Your task to perform on an android device: Set an alarm for 3pm Image 0: 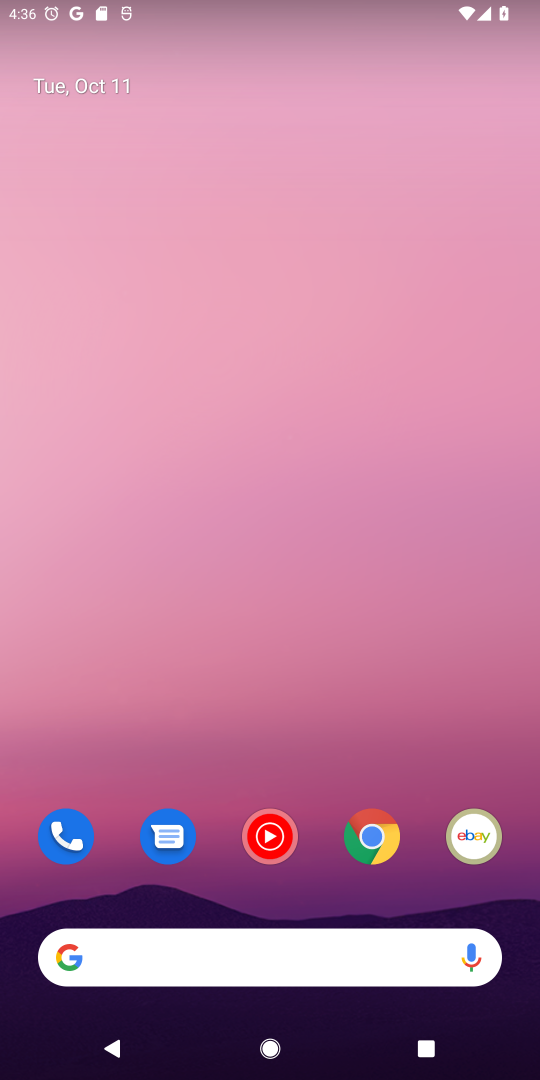
Step 0: drag from (210, 905) to (209, 178)
Your task to perform on an android device: Set an alarm for 3pm Image 1: 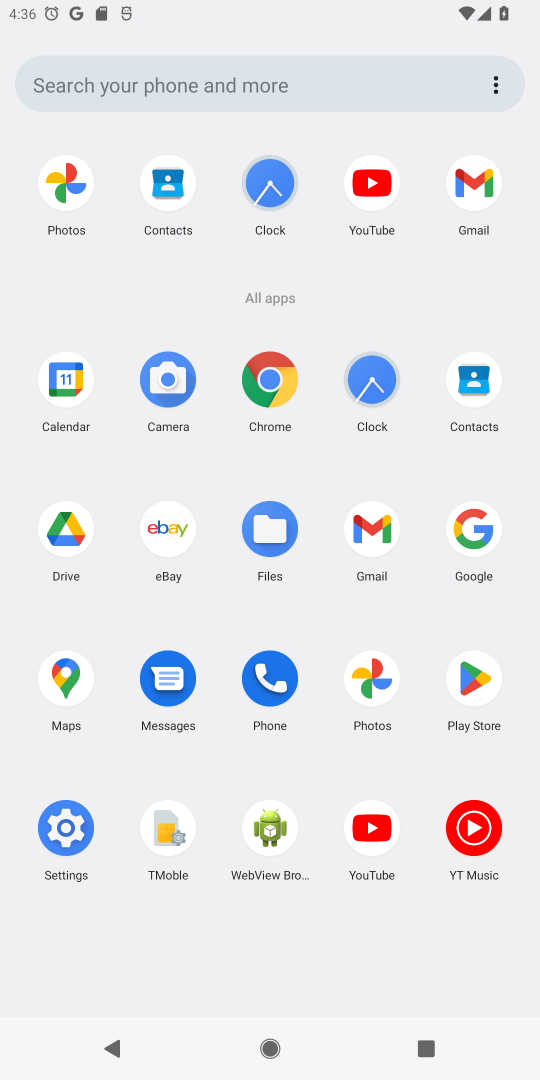
Step 1: click (254, 186)
Your task to perform on an android device: Set an alarm for 3pm Image 2: 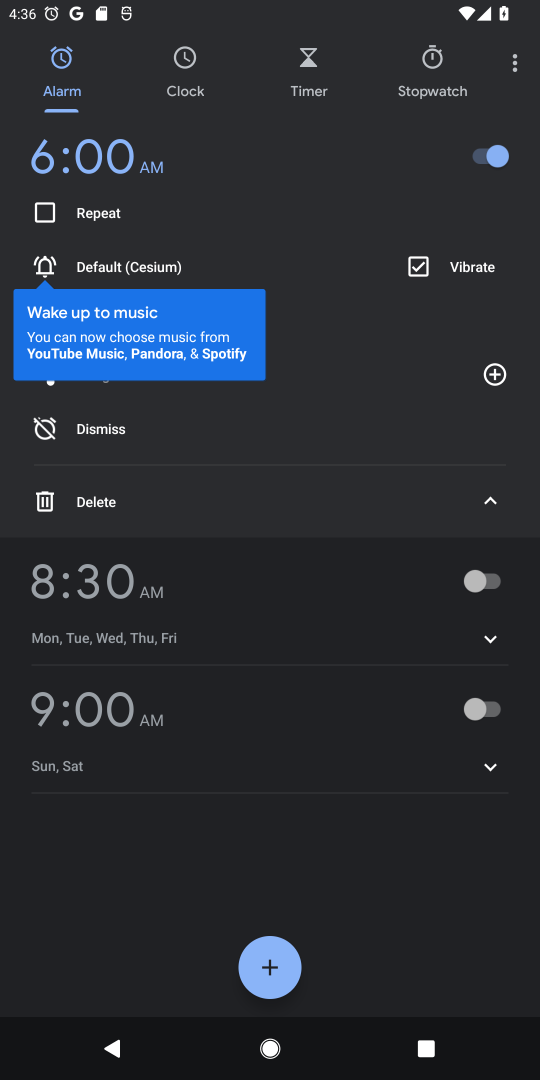
Step 2: click (294, 962)
Your task to perform on an android device: Set an alarm for 3pm Image 3: 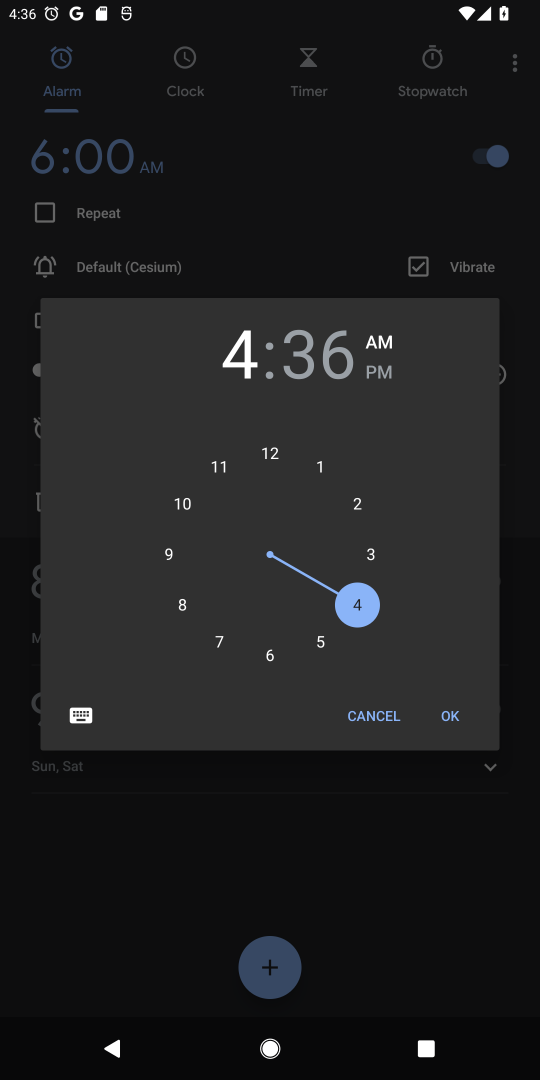
Step 3: click (374, 555)
Your task to perform on an android device: Set an alarm for 3pm Image 4: 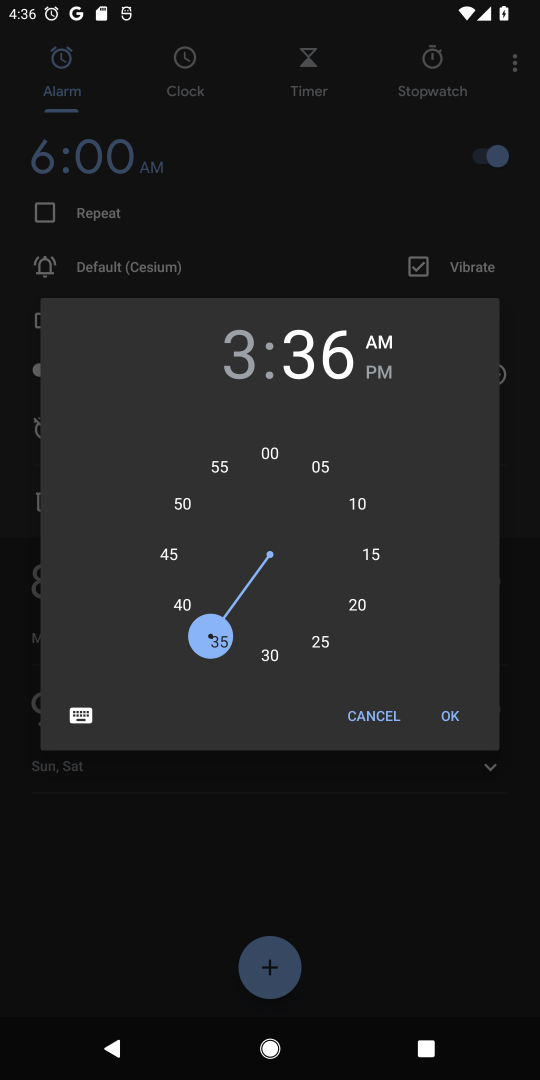
Step 4: click (284, 460)
Your task to perform on an android device: Set an alarm for 3pm Image 5: 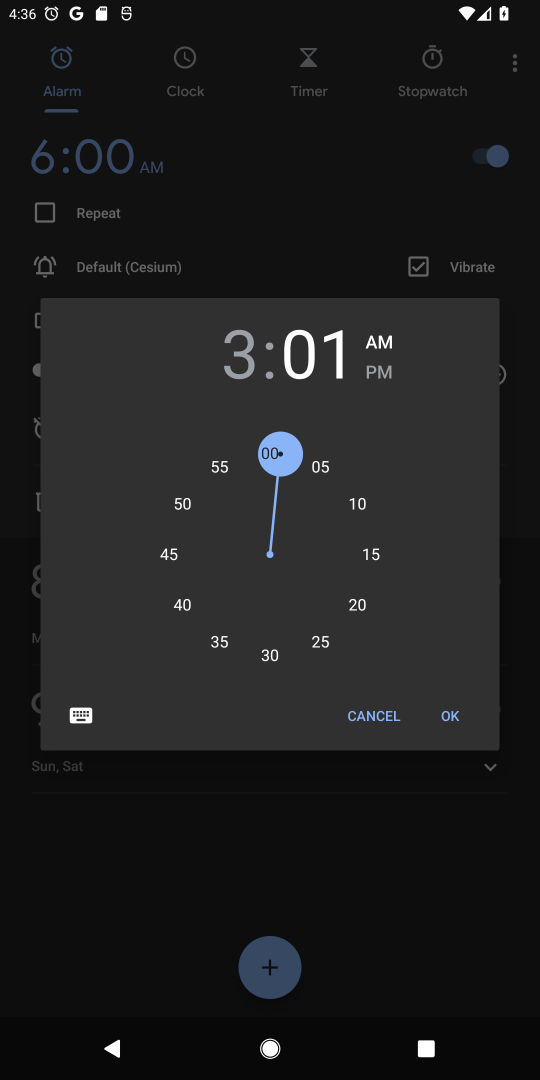
Step 5: click (383, 380)
Your task to perform on an android device: Set an alarm for 3pm Image 6: 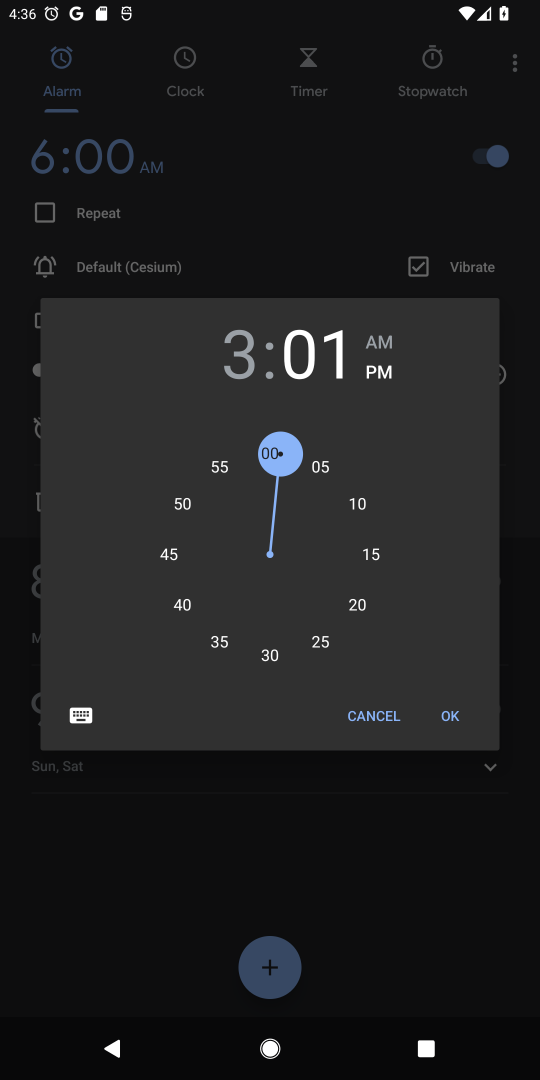
Step 6: click (450, 712)
Your task to perform on an android device: Set an alarm for 3pm Image 7: 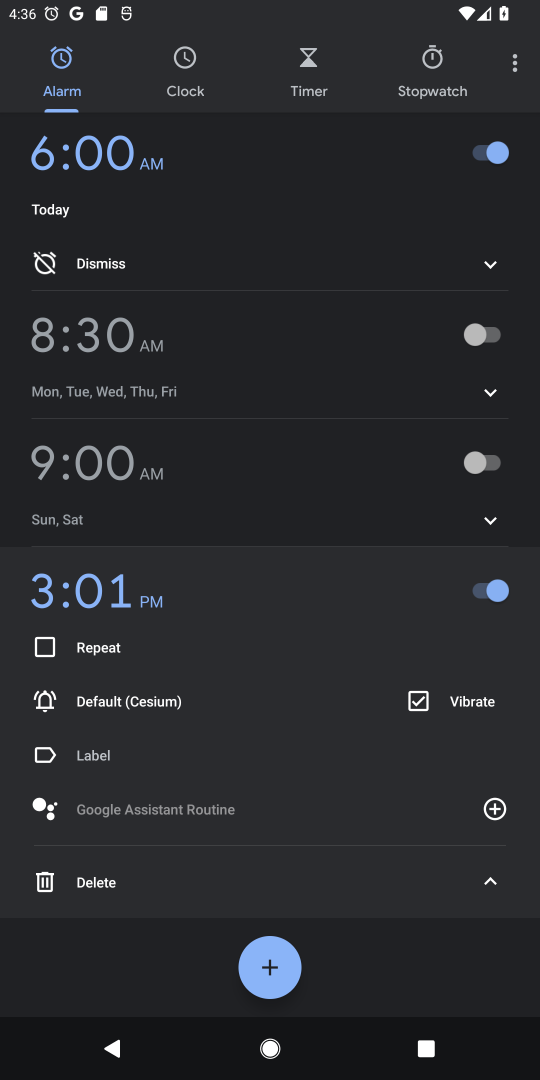
Step 7: task complete